Your task to perform on an android device: turn on priority inbox in the gmail app Image 0: 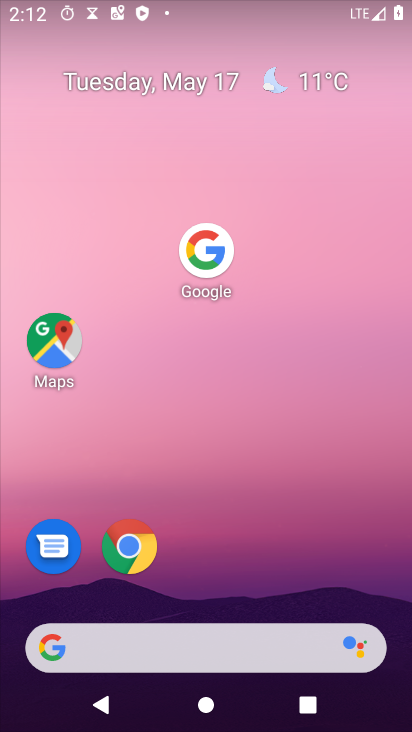
Step 0: press home button
Your task to perform on an android device: turn on priority inbox in the gmail app Image 1: 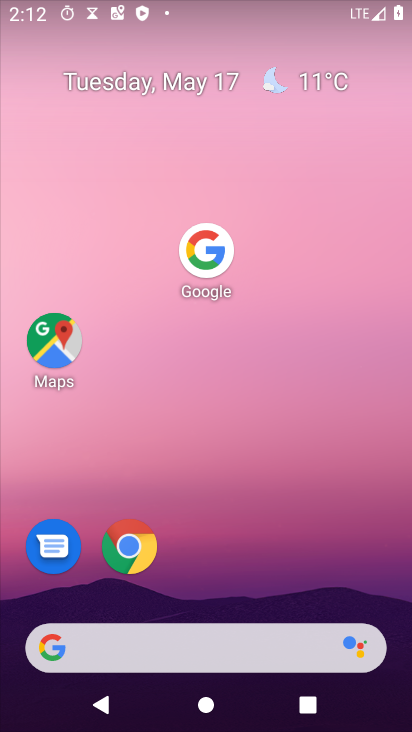
Step 1: drag from (166, 651) to (321, 133)
Your task to perform on an android device: turn on priority inbox in the gmail app Image 2: 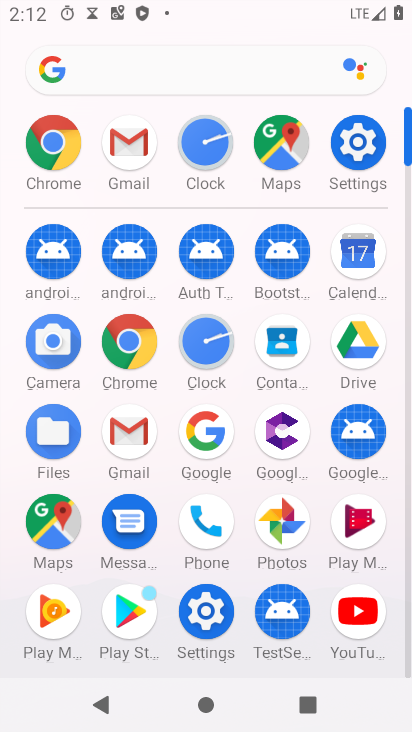
Step 2: click (127, 160)
Your task to perform on an android device: turn on priority inbox in the gmail app Image 3: 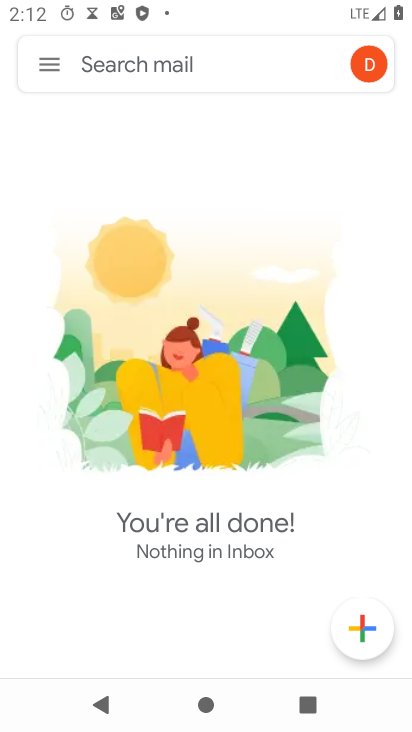
Step 3: click (49, 65)
Your task to perform on an android device: turn on priority inbox in the gmail app Image 4: 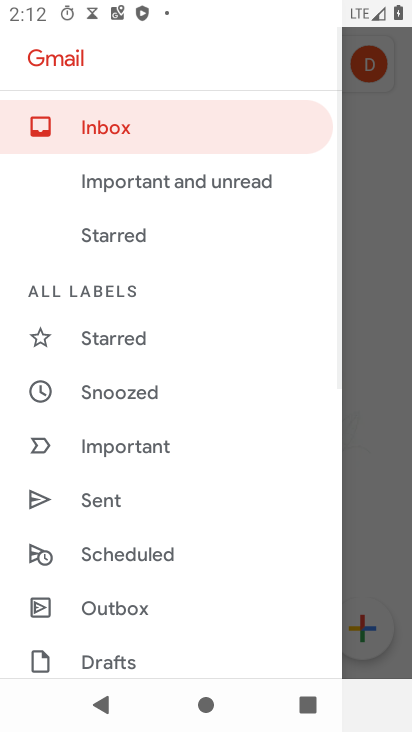
Step 4: drag from (161, 633) to (287, 32)
Your task to perform on an android device: turn on priority inbox in the gmail app Image 5: 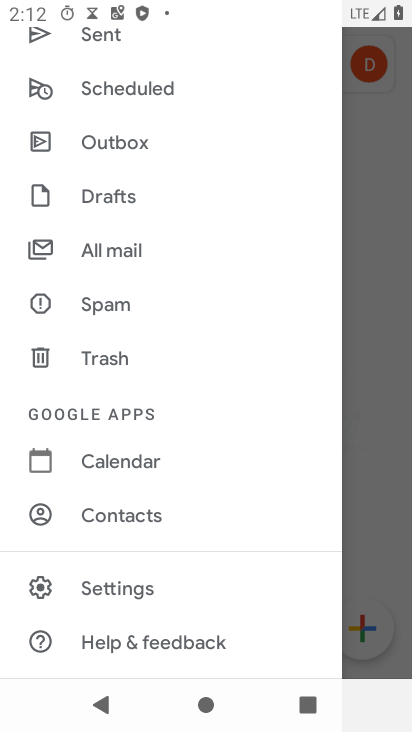
Step 5: click (140, 591)
Your task to perform on an android device: turn on priority inbox in the gmail app Image 6: 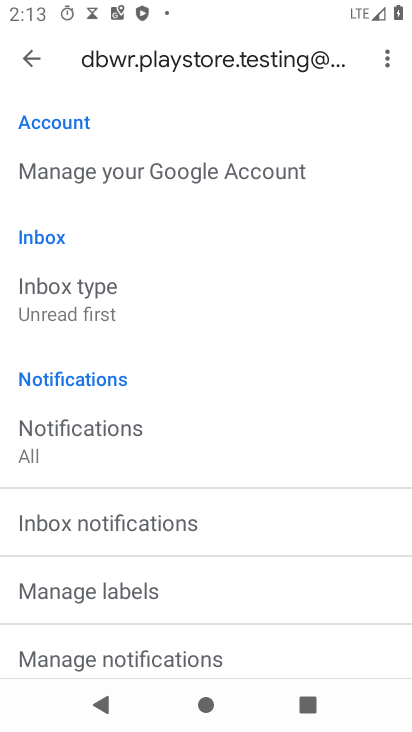
Step 6: click (71, 311)
Your task to perform on an android device: turn on priority inbox in the gmail app Image 7: 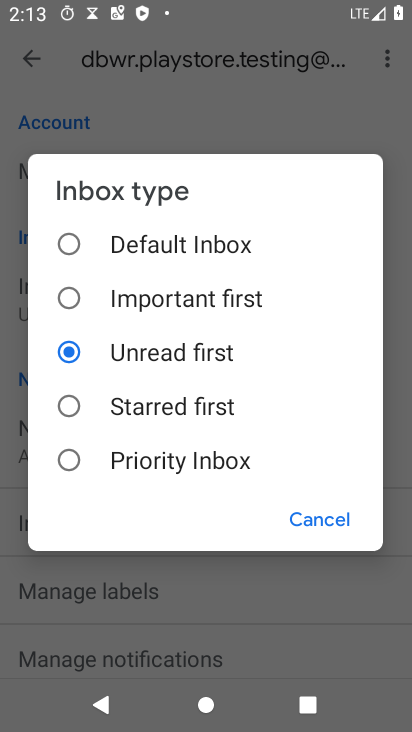
Step 7: click (63, 463)
Your task to perform on an android device: turn on priority inbox in the gmail app Image 8: 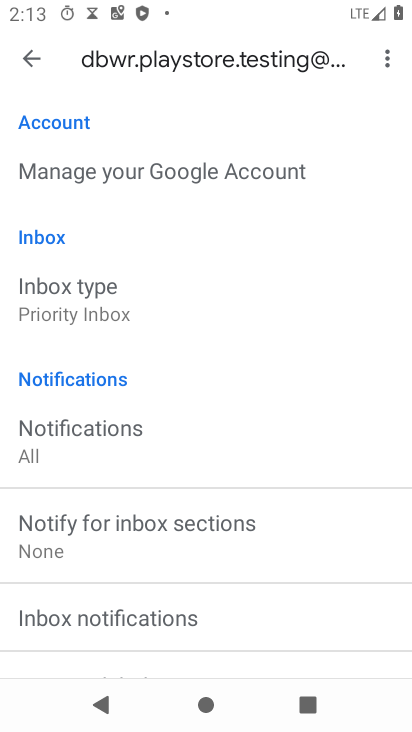
Step 8: task complete